Your task to perform on an android device: see creations saved in the google photos Image 0: 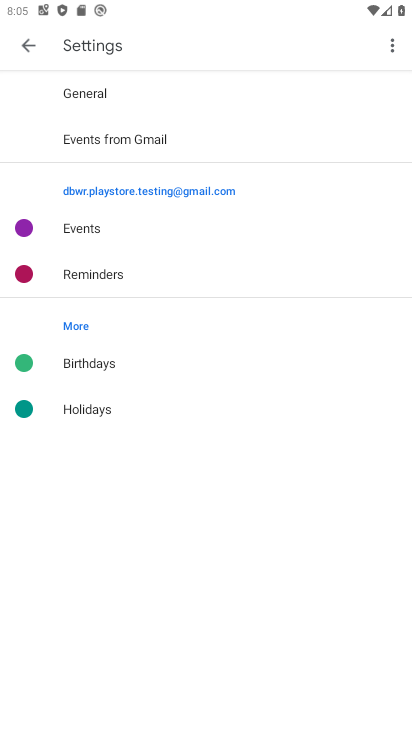
Step 0: press back button
Your task to perform on an android device: see creations saved in the google photos Image 1: 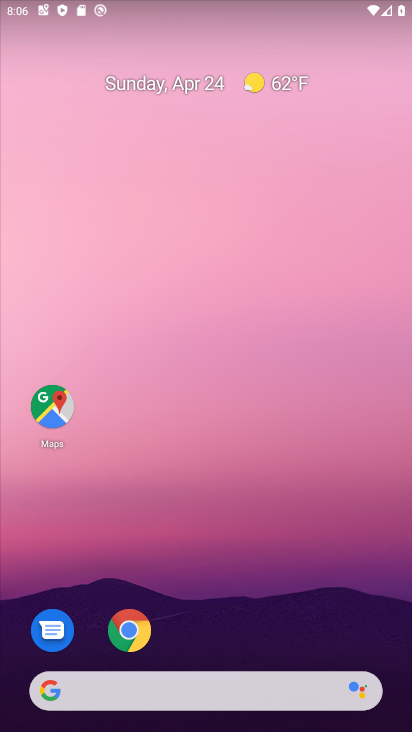
Step 1: drag from (191, 546) to (203, 81)
Your task to perform on an android device: see creations saved in the google photos Image 2: 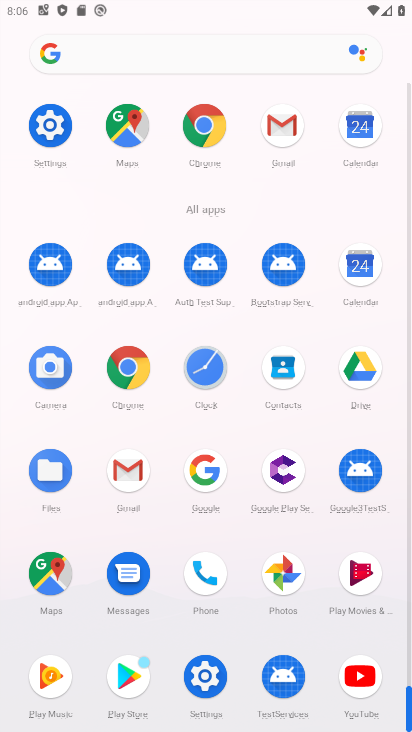
Step 2: drag from (11, 664) to (20, 459)
Your task to perform on an android device: see creations saved in the google photos Image 3: 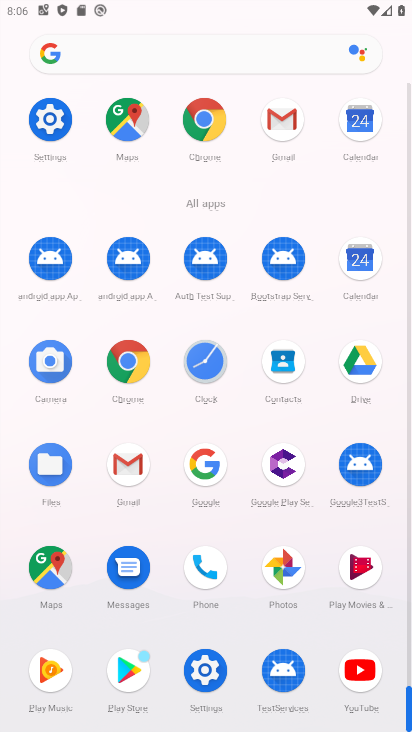
Step 3: click (287, 564)
Your task to perform on an android device: see creations saved in the google photos Image 4: 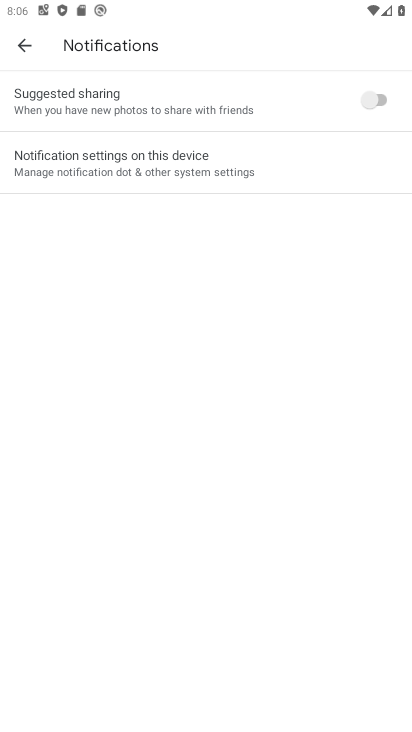
Step 4: click (24, 48)
Your task to perform on an android device: see creations saved in the google photos Image 5: 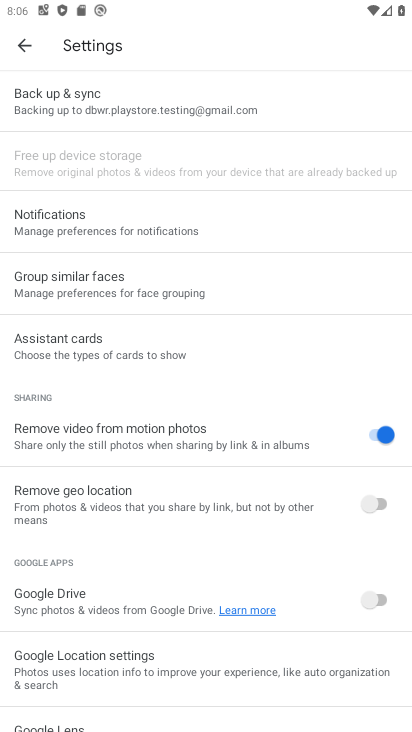
Step 5: drag from (77, 585) to (149, 163)
Your task to perform on an android device: see creations saved in the google photos Image 6: 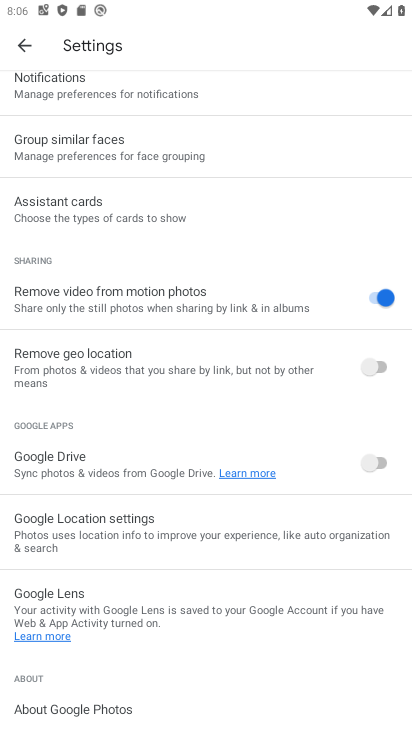
Step 6: drag from (122, 189) to (112, 452)
Your task to perform on an android device: see creations saved in the google photos Image 7: 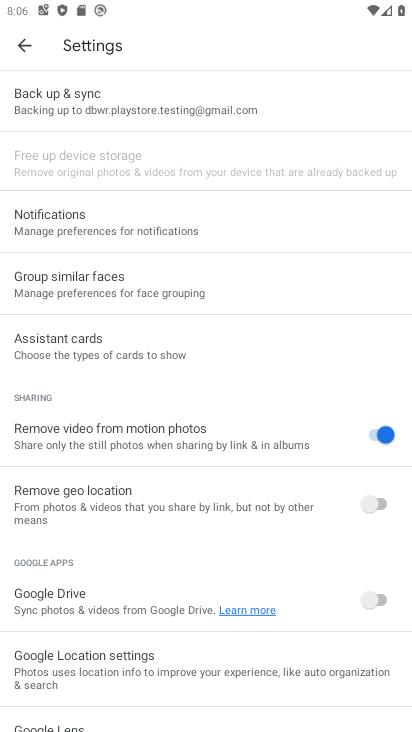
Step 7: click (74, 120)
Your task to perform on an android device: see creations saved in the google photos Image 8: 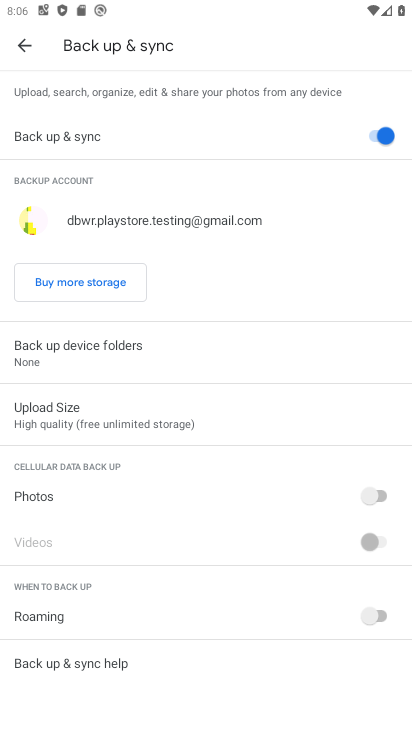
Step 8: drag from (183, 570) to (258, 129)
Your task to perform on an android device: see creations saved in the google photos Image 9: 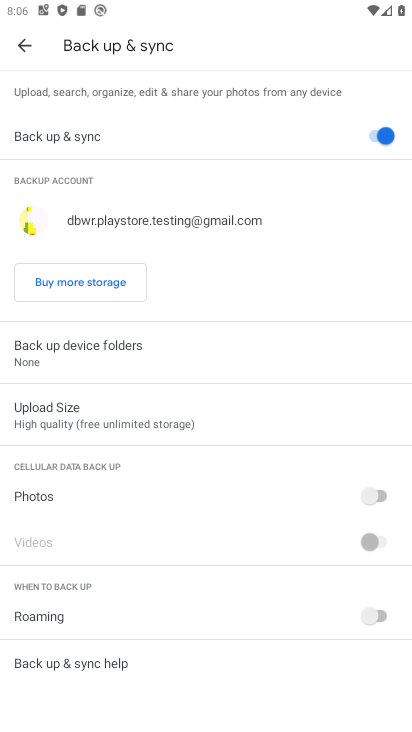
Step 9: click (27, 39)
Your task to perform on an android device: see creations saved in the google photos Image 10: 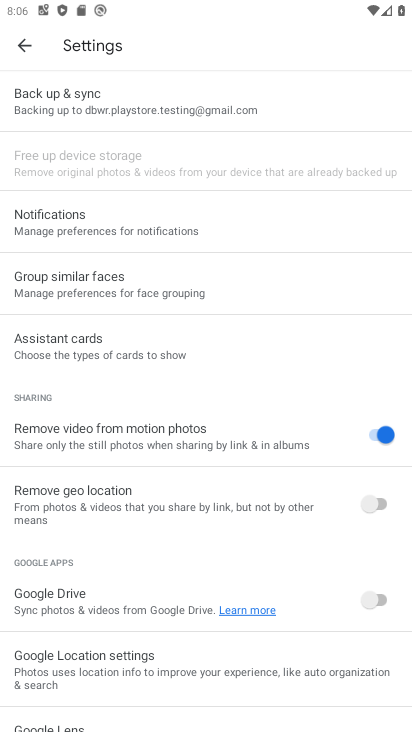
Step 10: click (123, 277)
Your task to perform on an android device: see creations saved in the google photos Image 11: 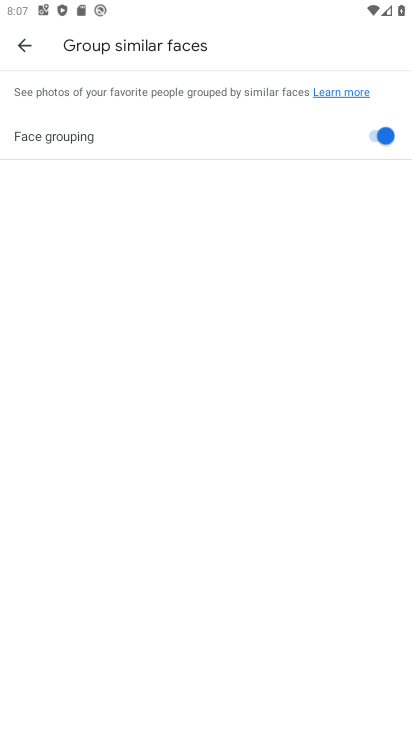
Step 11: click (18, 36)
Your task to perform on an android device: see creations saved in the google photos Image 12: 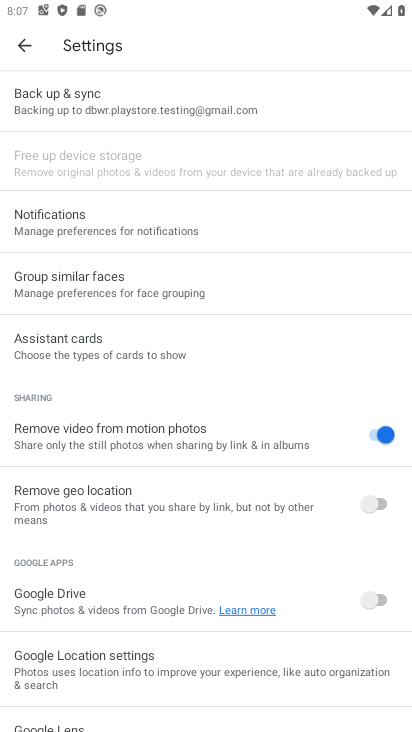
Step 12: click (24, 44)
Your task to perform on an android device: see creations saved in the google photos Image 13: 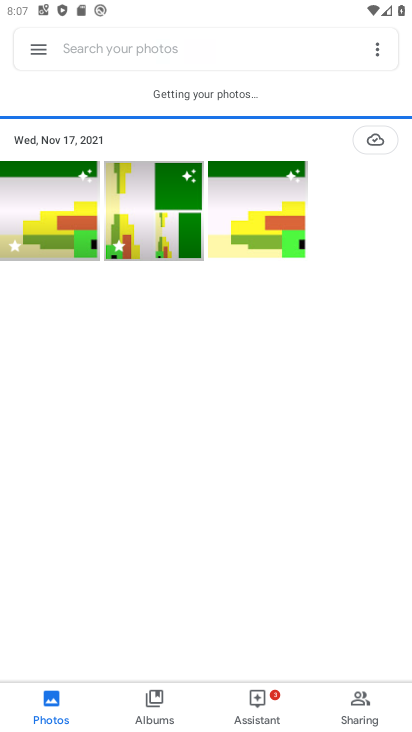
Step 13: click (366, 45)
Your task to perform on an android device: see creations saved in the google photos Image 14: 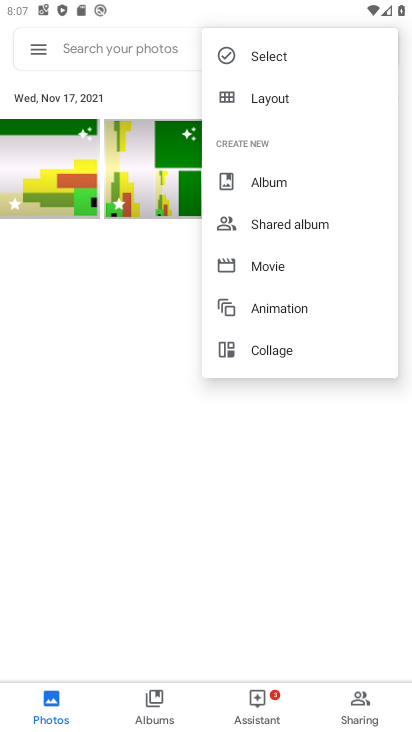
Step 14: click (255, 562)
Your task to perform on an android device: see creations saved in the google photos Image 15: 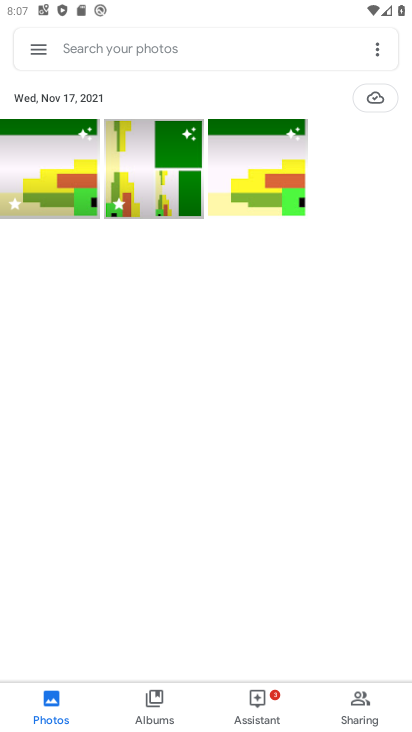
Step 15: click (249, 717)
Your task to perform on an android device: see creations saved in the google photos Image 16: 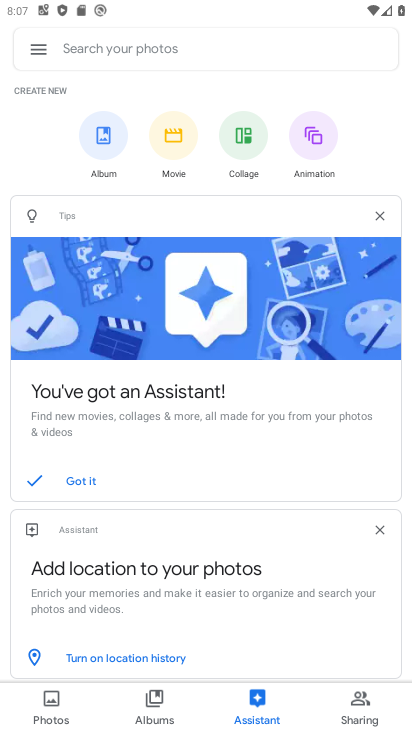
Step 16: click (342, 711)
Your task to perform on an android device: see creations saved in the google photos Image 17: 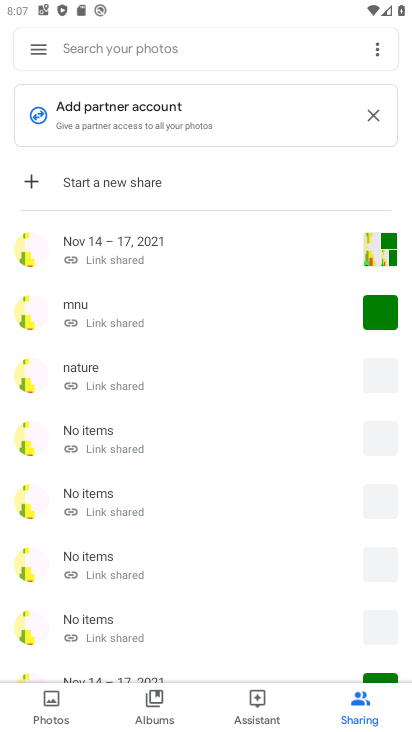
Step 17: drag from (201, 550) to (210, 174)
Your task to perform on an android device: see creations saved in the google photos Image 18: 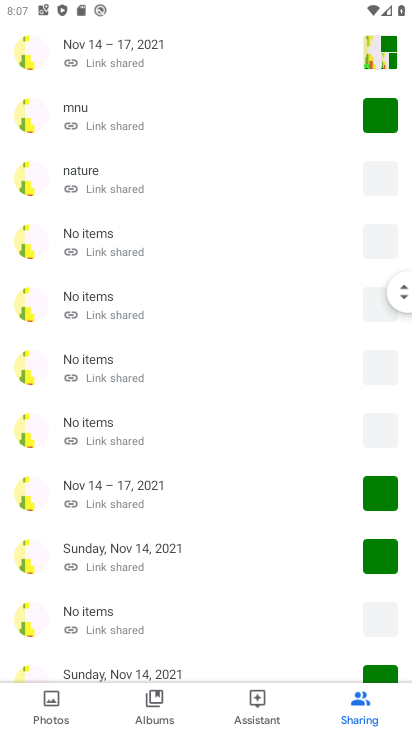
Step 18: drag from (182, 611) to (193, 119)
Your task to perform on an android device: see creations saved in the google photos Image 19: 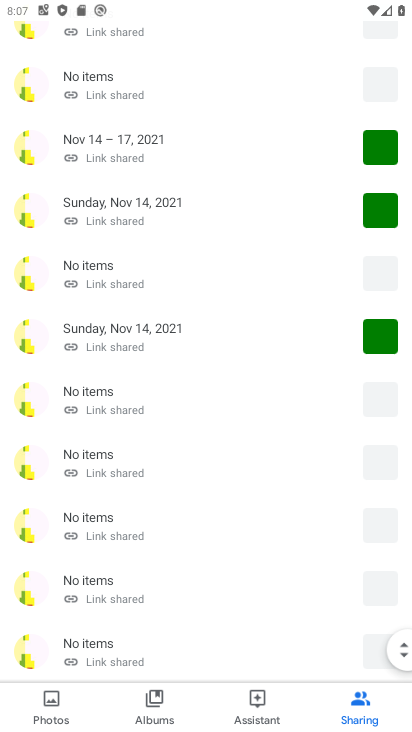
Step 19: drag from (193, 558) to (215, 202)
Your task to perform on an android device: see creations saved in the google photos Image 20: 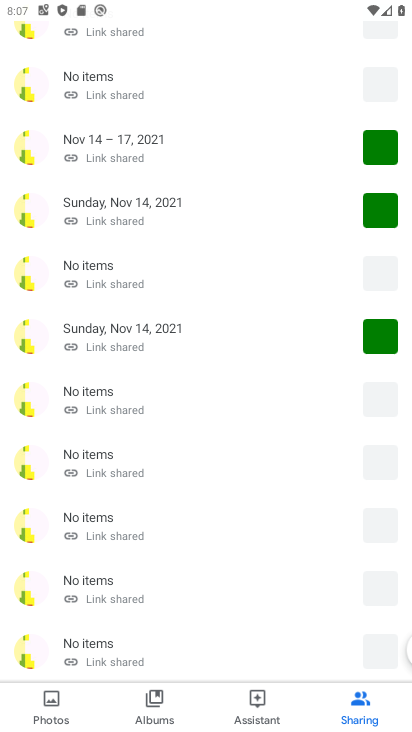
Step 20: click (71, 722)
Your task to perform on an android device: see creations saved in the google photos Image 21: 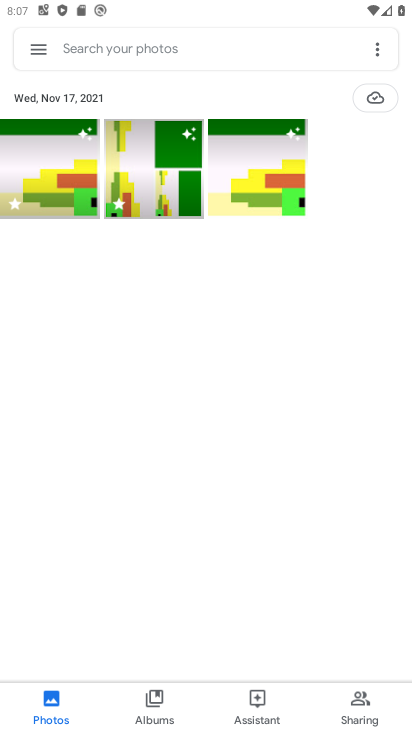
Step 21: click (371, 52)
Your task to perform on an android device: see creations saved in the google photos Image 22: 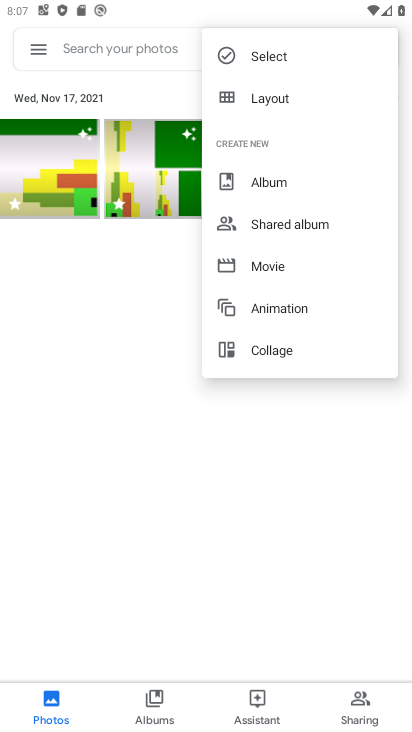
Step 22: click (35, 408)
Your task to perform on an android device: see creations saved in the google photos Image 23: 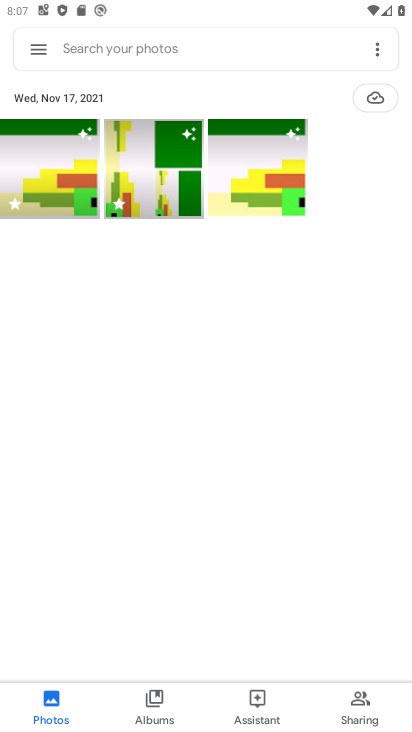
Step 23: click (371, 94)
Your task to perform on an android device: see creations saved in the google photos Image 24: 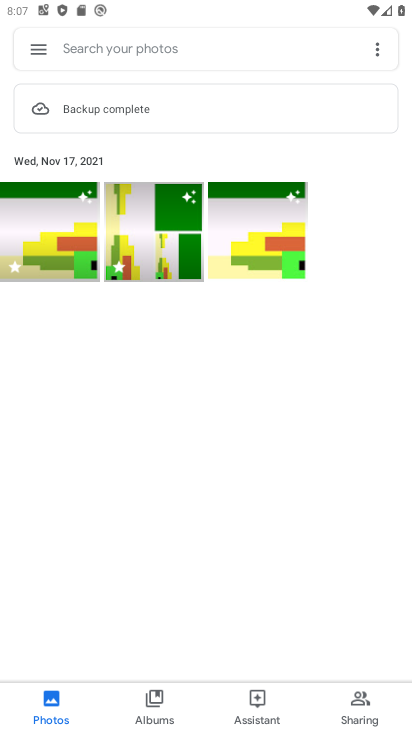
Step 24: task complete